Your task to perform on an android device: check google app version Image 0: 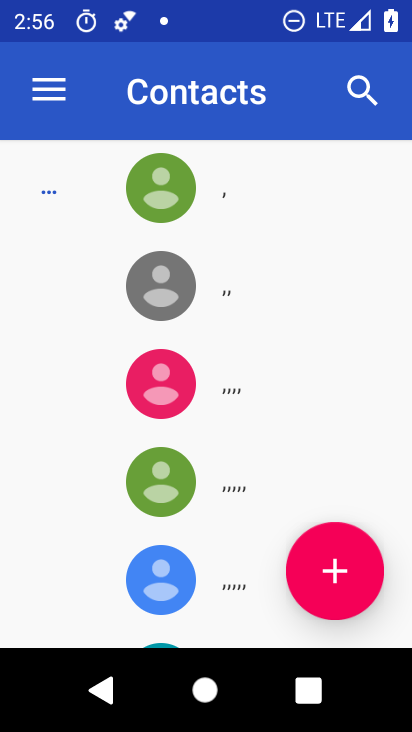
Step 0: press home button
Your task to perform on an android device: check google app version Image 1: 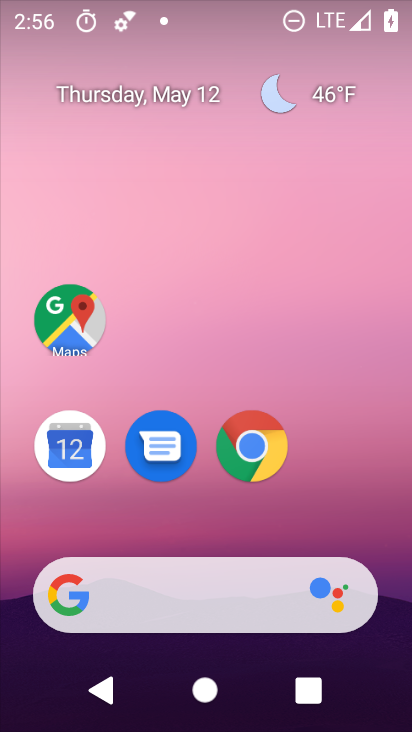
Step 1: drag from (172, 519) to (213, 212)
Your task to perform on an android device: check google app version Image 2: 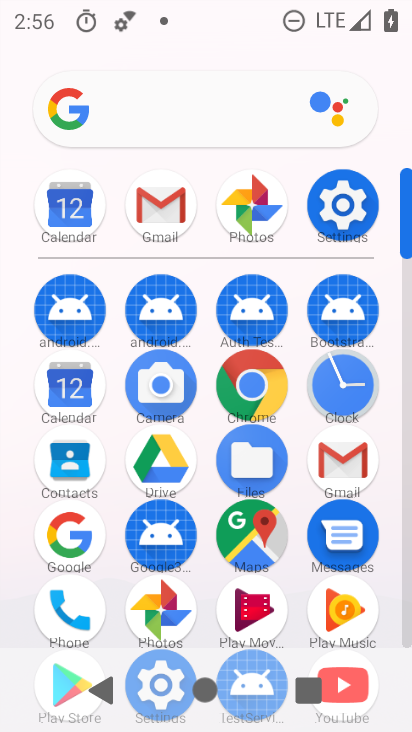
Step 2: click (54, 541)
Your task to perform on an android device: check google app version Image 3: 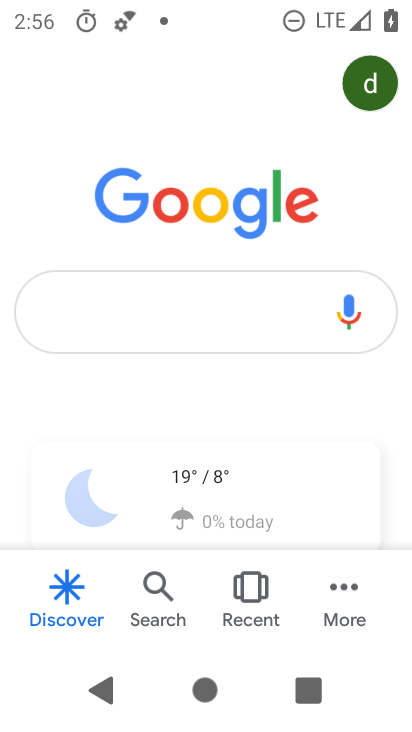
Step 3: click (344, 599)
Your task to perform on an android device: check google app version Image 4: 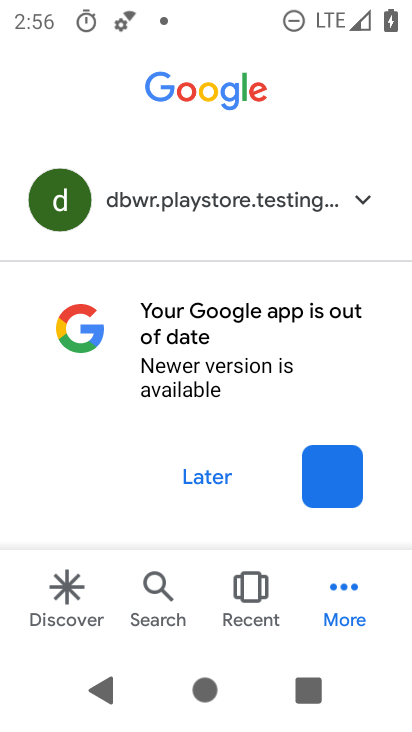
Step 4: click (327, 594)
Your task to perform on an android device: check google app version Image 5: 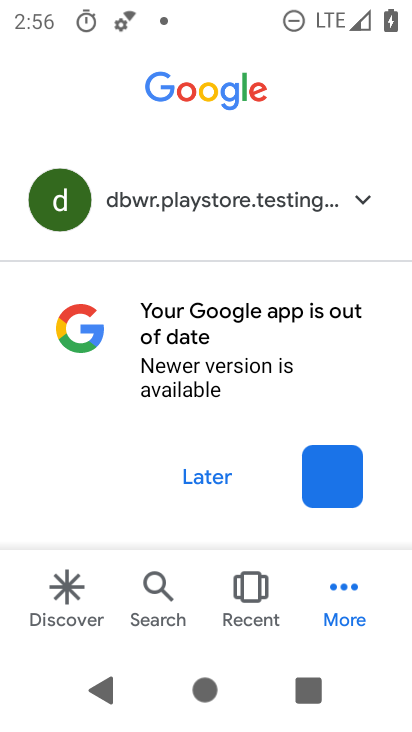
Step 5: click (343, 594)
Your task to perform on an android device: check google app version Image 6: 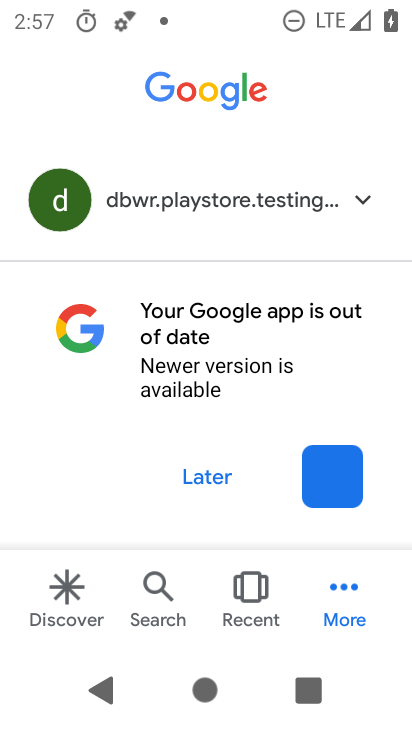
Step 6: drag from (258, 474) to (279, 272)
Your task to perform on an android device: check google app version Image 7: 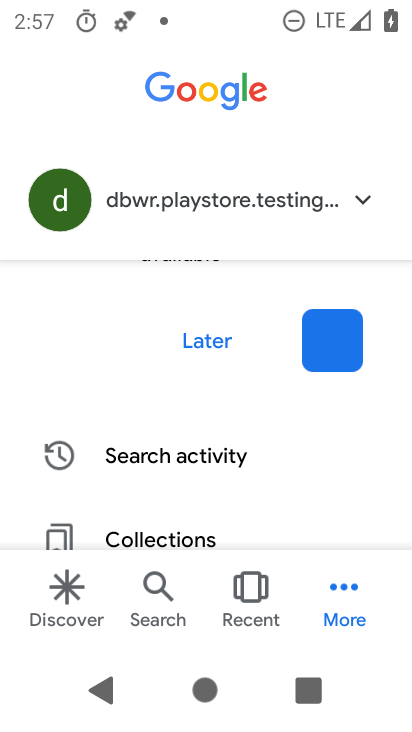
Step 7: drag from (270, 473) to (269, 219)
Your task to perform on an android device: check google app version Image 8: 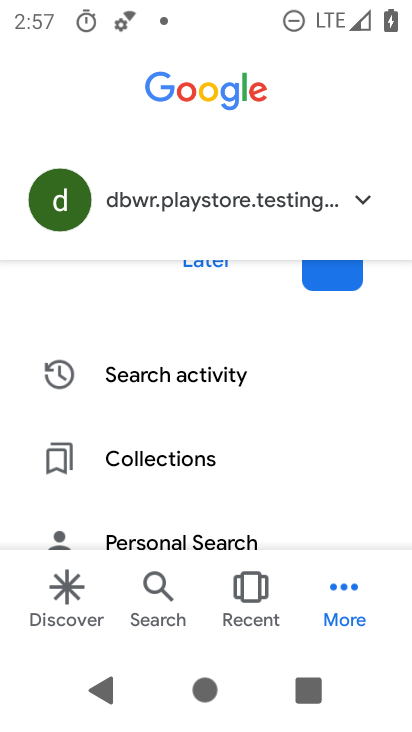
Step 8: drag from (234, 480) to (244, 323)
Your task to perform on an android device: check google app version Image 9: 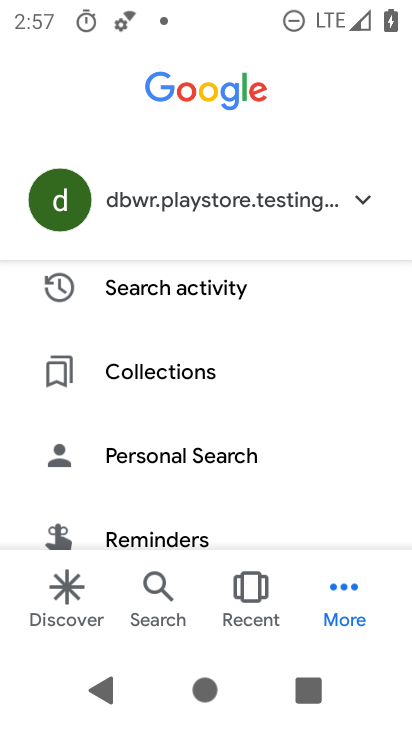
Step 9: drag from (253, 462) to (277, 333)
Your task to perform on an android device: check google app version Image 10: 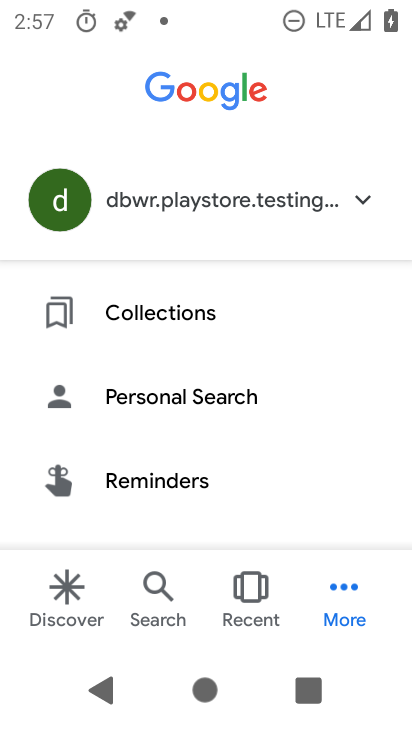
Step 10: drag from (267, 451) to (275, 279)
Your task to perform on an android device: check google app version Image 11: 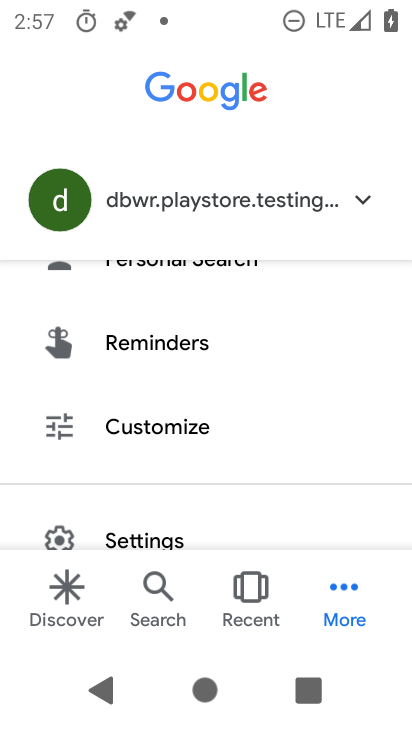
Step 11: drag from (275, 473) to (286, 308)
Your task to perform on an android device: check google app version Image 12: 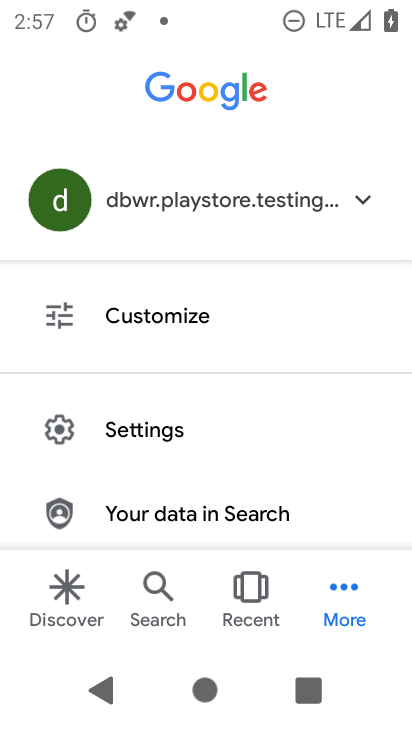
Step 12: drag from (229, 448) to (229, 377)
Your task to perform on an android device: check google app version Image 13: 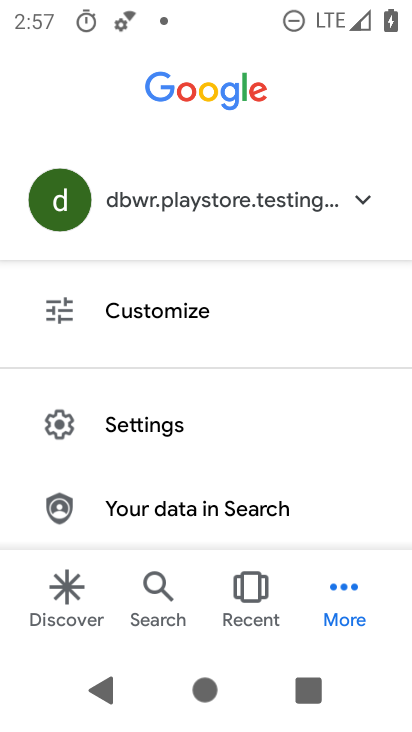
Step 13: click (178, 414)
Your task to perform on an android device: check google app version Image 14: 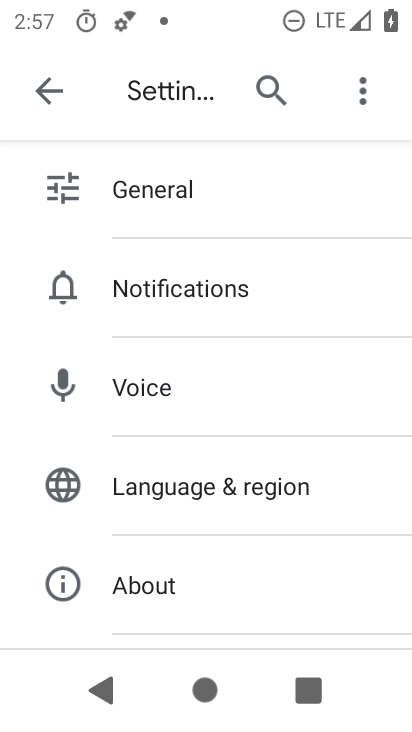
Step 14: drag from (242, 564) to (262, 312)
Your task to perform on an android device: check google app version Image 15: 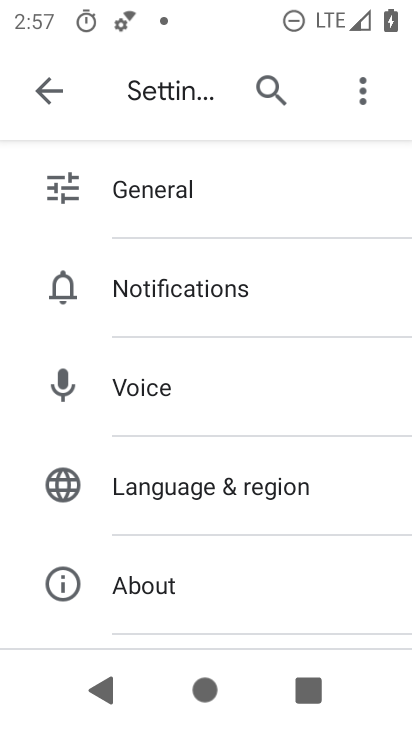
Step 15: click (180, 577)
Your task to perform on an android device: check google app version Image 16: 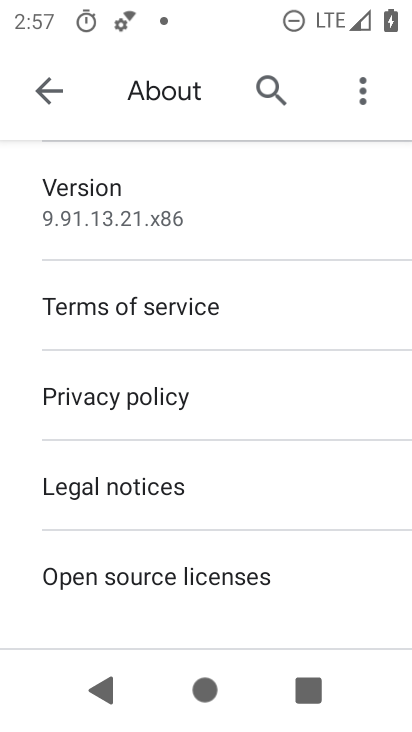
Step 16: click (213, 217)
Your task to perform on an android device: check google app version Image 17: 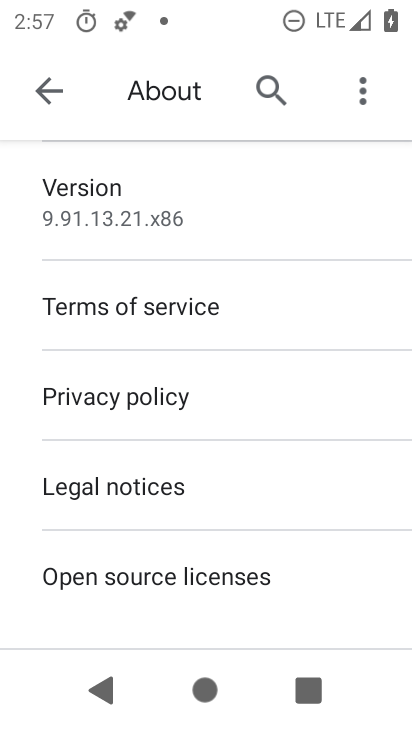
Step 17: task complete